Your task to perform on an android device: set default search engine in the chrome app Image 0: 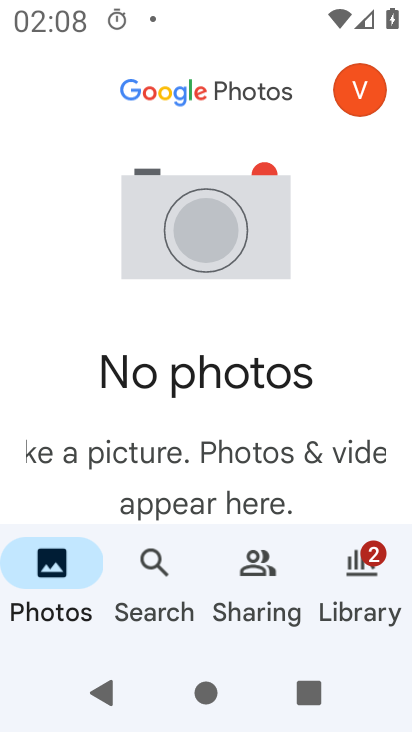
Step 0: press home button
Your task to perform on an android device: set default search engine in the chrome app Image 1: 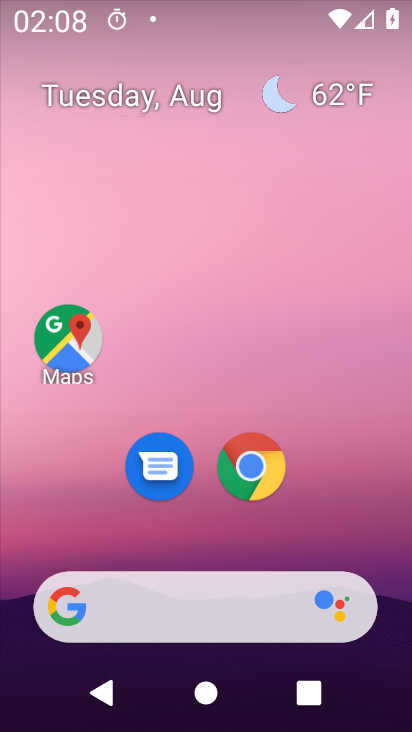
Step 1: drag from (370, 528) to (385, 126)
Your task to perform on an android device: set default search engine in the chrome app Image 2: 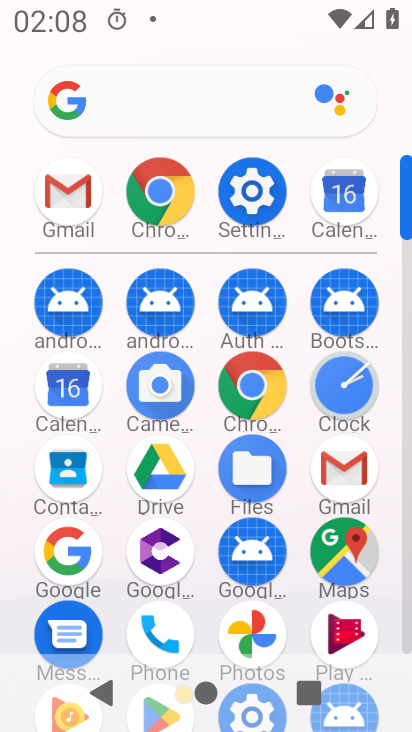
Step 2: click (257, 405)
Your task to perform on an android device: set default search engine in the chrome app Image 3: 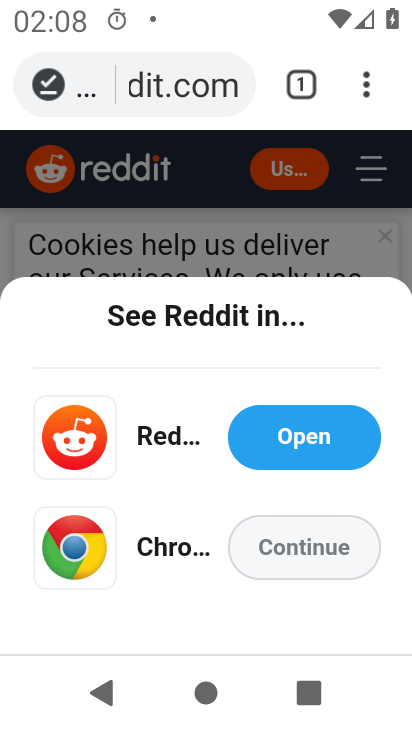
Step 3: click (364, 92)
Your task to perform on an android device: set default search engine in the chrome app Image 4: 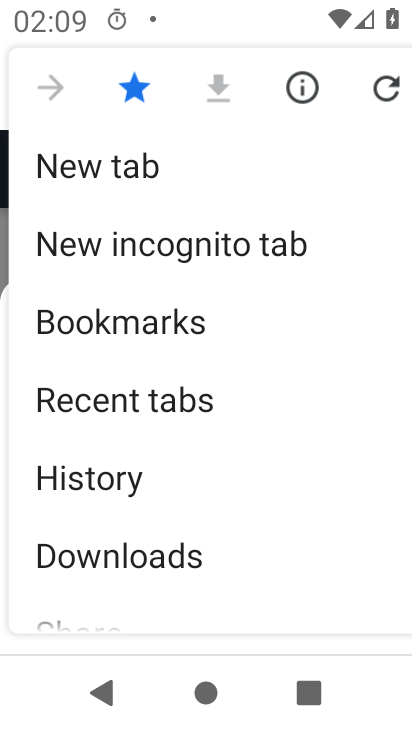
Step 4: drag from (318, 502) to (331, 386)
Your task to perform on an android device: set default search engine in the chrome app Image 5: 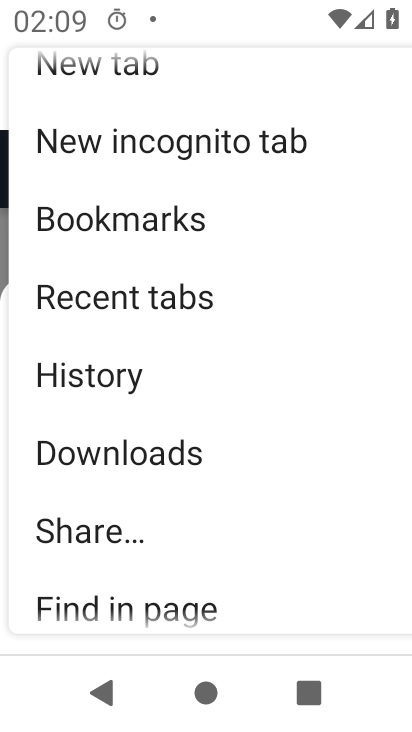
Step 5: drag from (322, 519) to (321, 391)
Your task to perform on an android device: set default search engine in the chrome app Image 6: 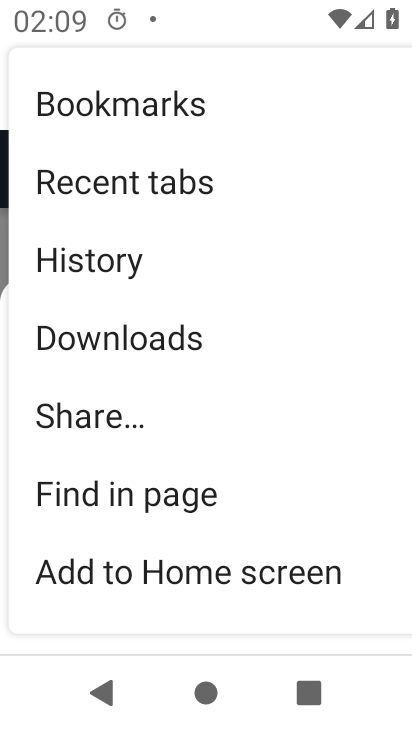
Step 6: drag from (296, 493) to (297, 336)
Your task to perform on an android device: set default search engine in the chrome app Image 7: 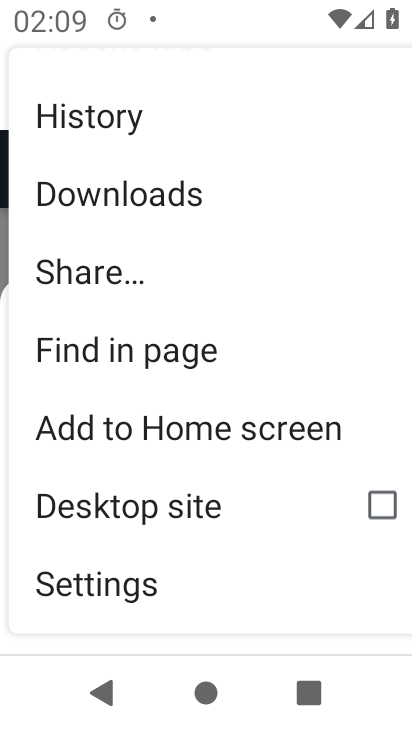
Step 7: drag from (288, 514) to (289, 339)
Your task to perform on an android device: set default search engine in the chrome app Image 8: 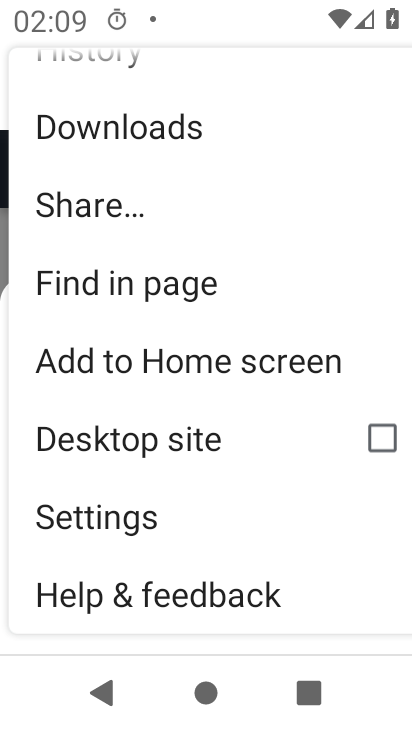
Step 8: click (205, 527)
Your task to perform on an android device: set default search engine in the chrome app Image 9: 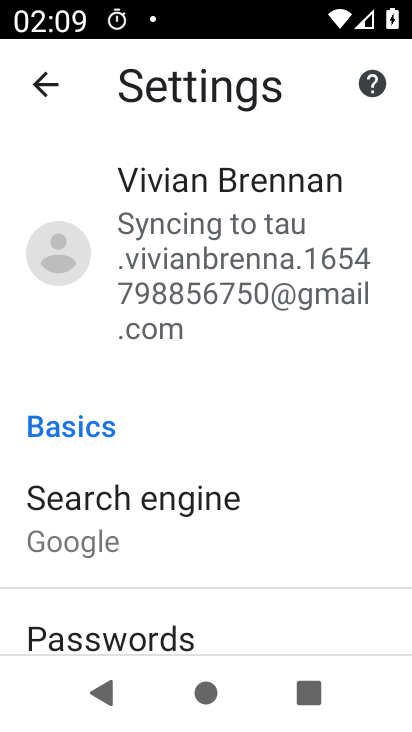
Step 9: drag from (284, 574) to (300, 439)
Your task to perform on an android device: set default search engine in the chrome app Image 10: 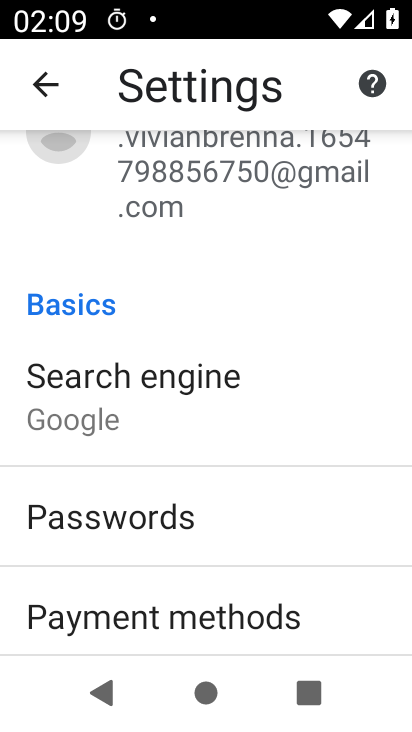
Step 10: drag from (311, 561) to (320, 432)
Your task to perform on an android device: set default search engine in the chrome app Image 11: 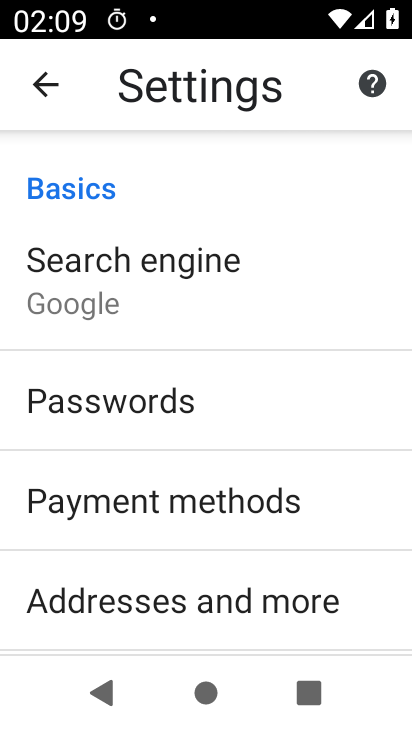
Step 11: click (208, 321)
Your task to perform on an android device: set default search engine in the chrome app Image 12: 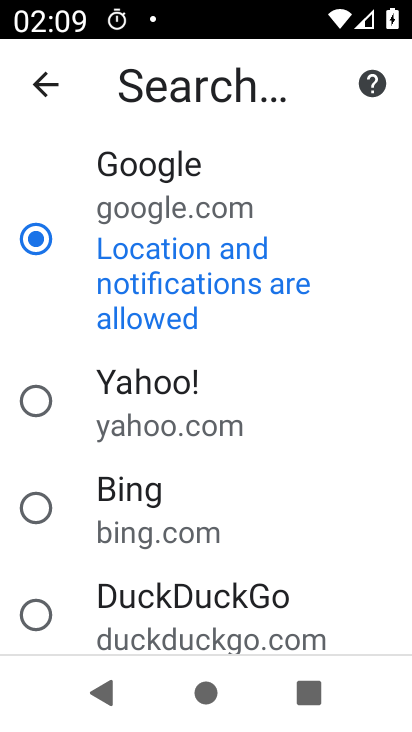
Step 12: click (168, 488)
Your task to perform on an android device: set default search engine in the chrome app Image 13: 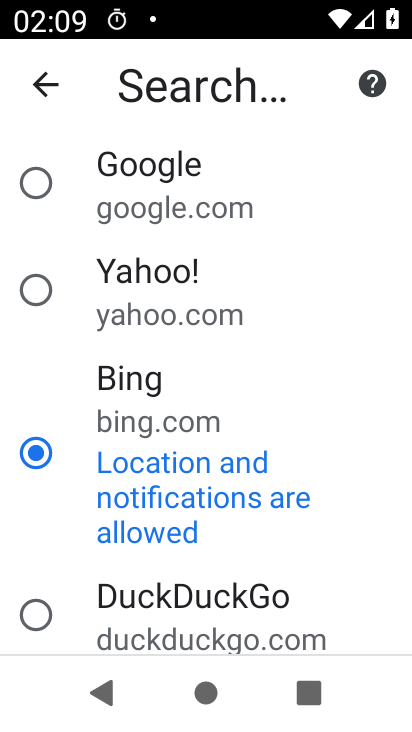
Step 13: task complete